Your task to perform on an android device: star an email in the gmail app Image 0: 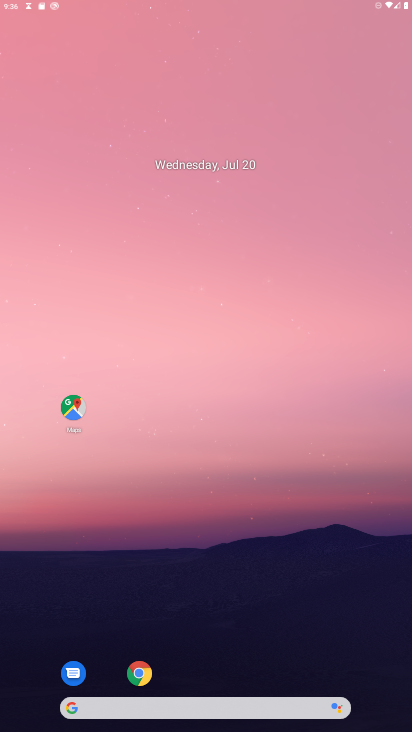
Step 0: drag from (338, 65) to (253, 3)
Your task to perform on an android device: star an email in the gmail app Image 1: 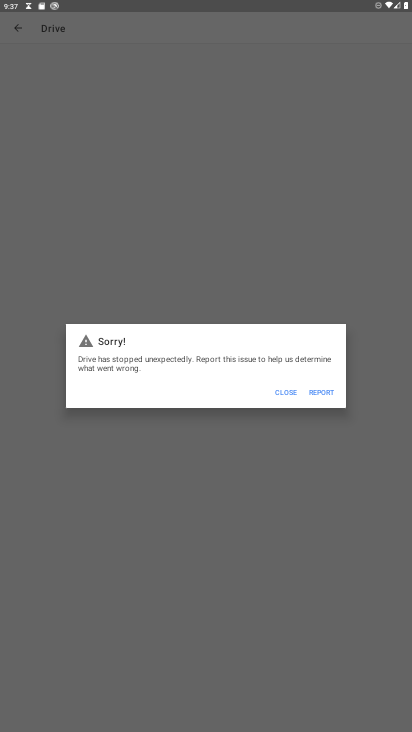
Step 1: press home button
Your task to perform on an android device: star an email in the gmail app Image 2: 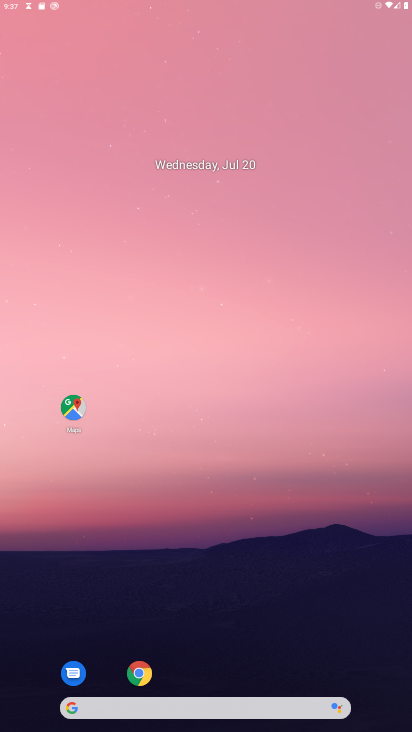
Step 2: drag from (300, 562) to (363, 230)
Your task to perform on an android device: star an email in the gmail app Image 3: 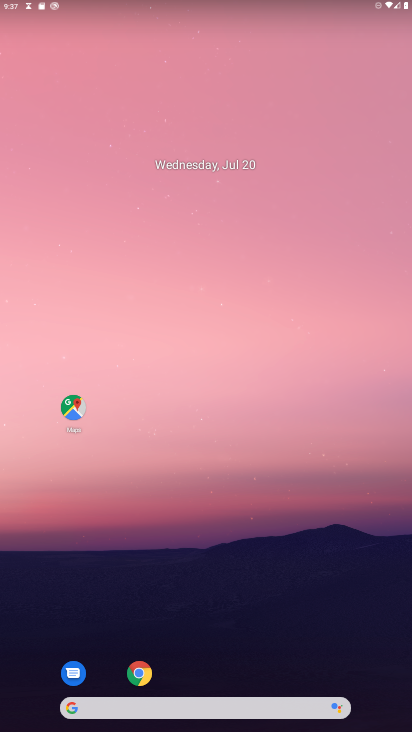
Step 3: drag from (219, 678) to (277, 60)
Your task to perform on an android device: star an email in the gmail app Image 4: 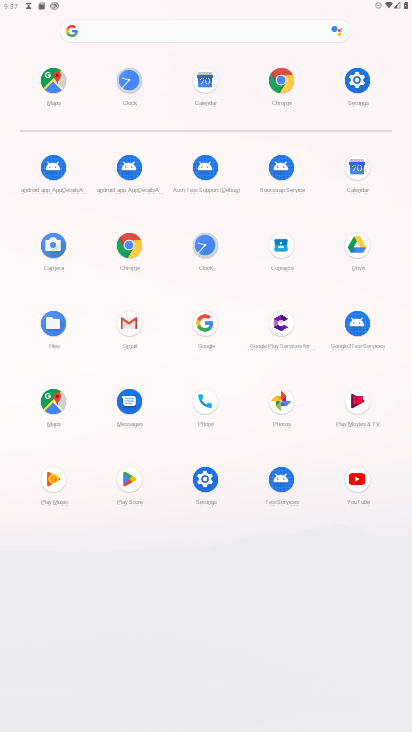
Step 4: click (128, 323)
Your task to perform on an android device: star an email in the gmail app Image 5: 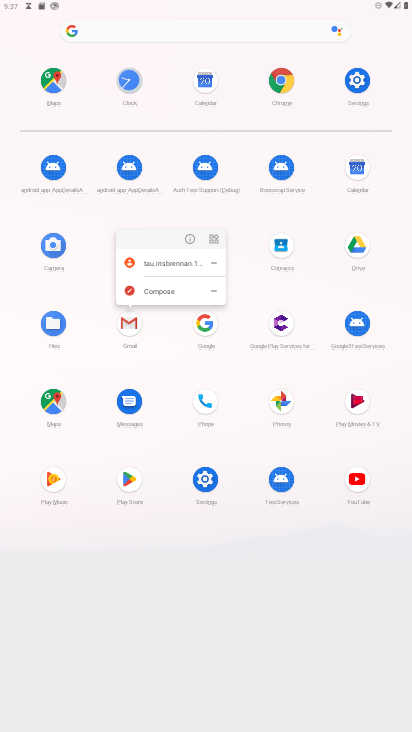
Step 5: click (190, 238)
Your task to perform on an android device: star an email in the gmail app Image 6: 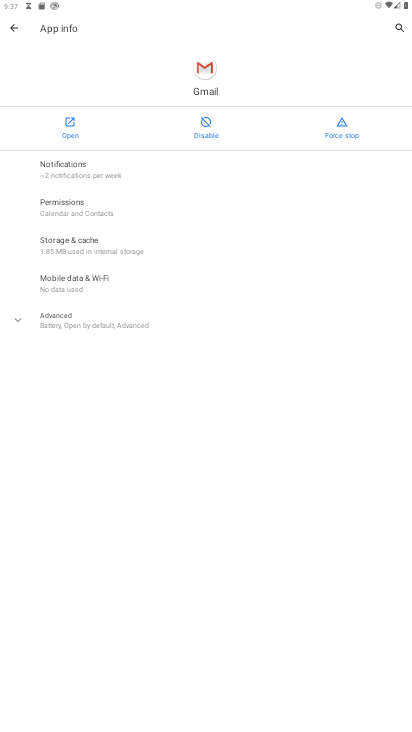
Step 6: click (69, 120)
Your task to perform on an android device: star an email in the gmail app Image 7: 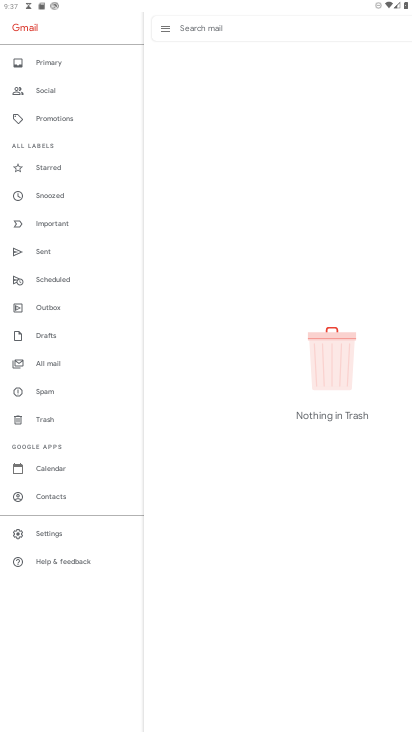
Step 7: click (56, 164)
Your task to perform on an android device: star an email in the gmail app Image 8: 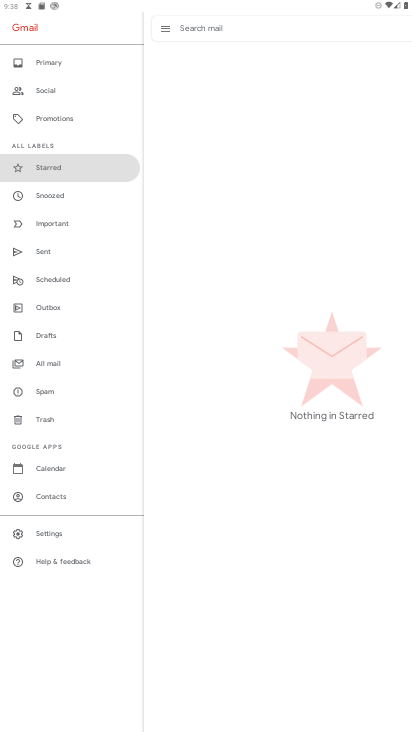
Step 8: task complete